Your task to perform on an android device: set default search engine in the chrome app Image 0: 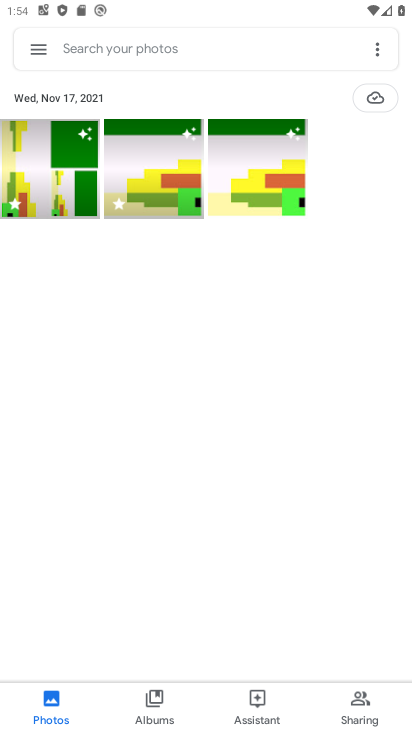
Step 0: press back button
Your task to perform on an android device: set default search engine in the chrome app Image 1: 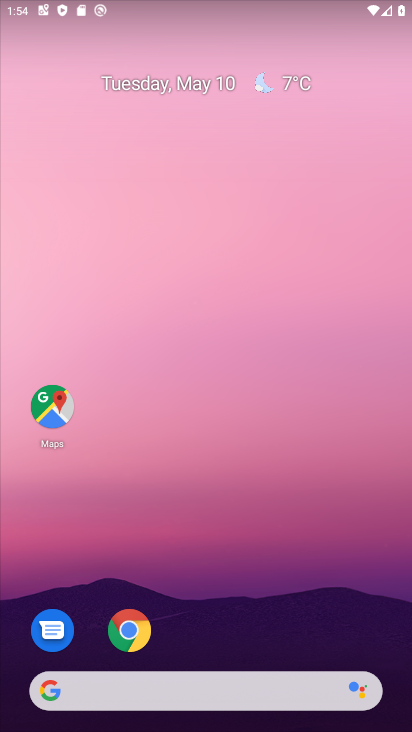
Step 1: drag from (245, 564) to (193, 0)
Your task to perform on an android device: set default search engine in the chrome app Image 2: 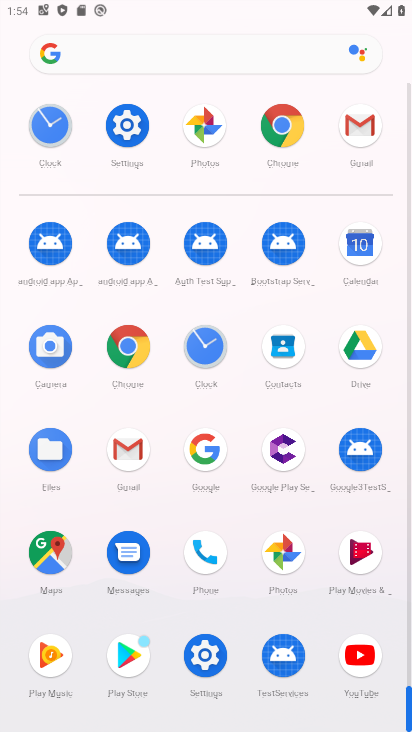
Step 2: click (126, 340)
Your task to perform on an android device: set default search engine in the chrome app Image 3: 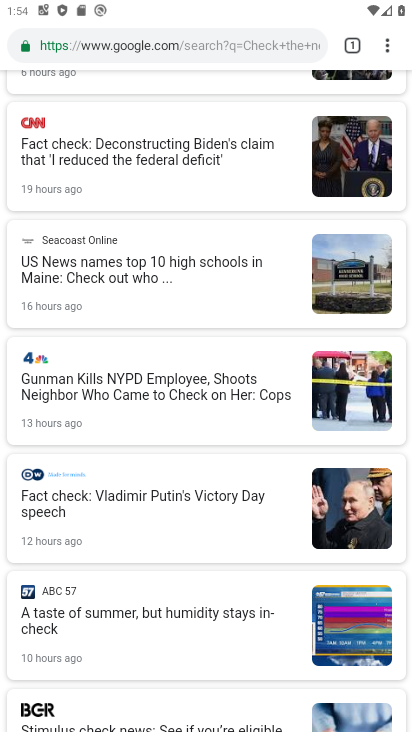
Step 3: drag from (384, 43) to (228, 505)
Your task to perform on an android device: set default search engine in the chrome app Image 4: 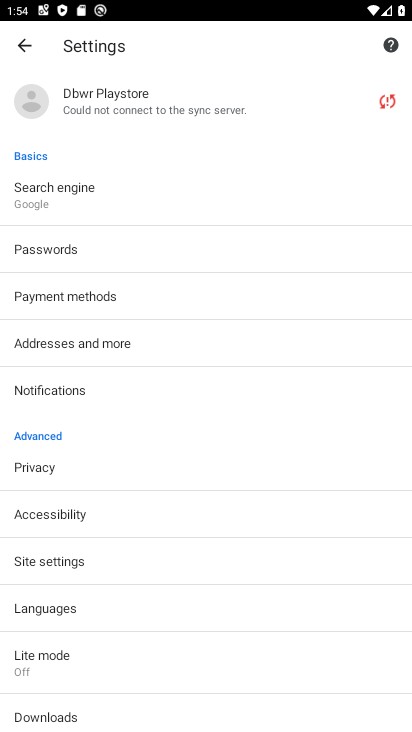
Step 4: drag from (143, 506) to (182, 185)
Your task to perform on an android device: set default search engine in the chrome app Image 5: 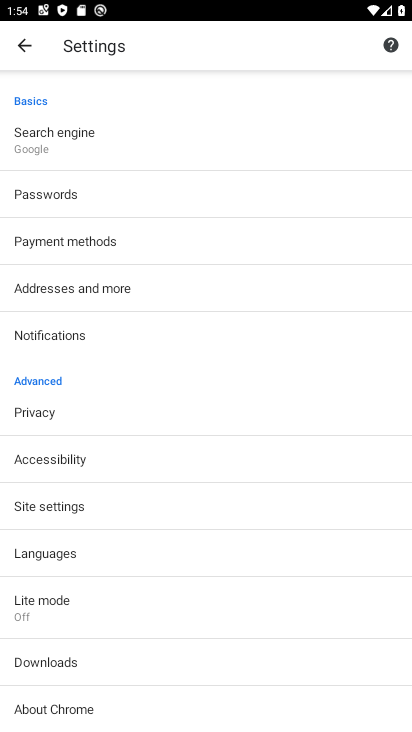
Step 5: click (70, 150)
Your task to perform on an android device: set default search engine in the chrome app Image 6: 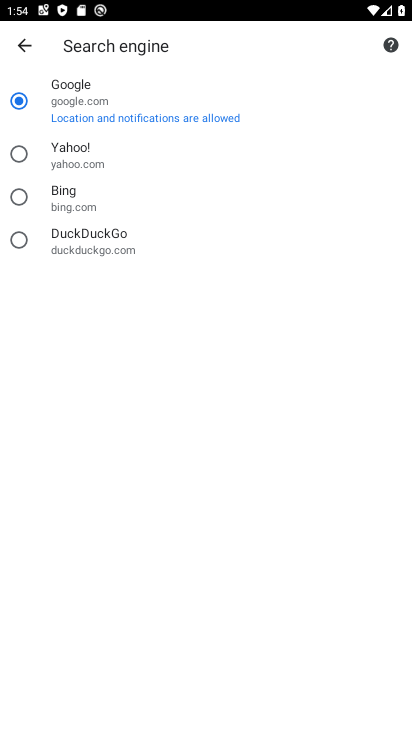
Step 6: click (71, 148)
Your task to perform on an android device: set default search engine in the chrome app Image 7: 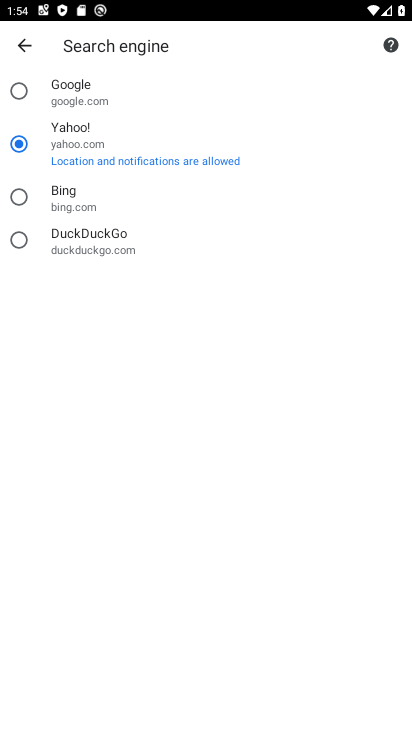
Step 7: task complete